Your task to perform on an android device: change your default location settings in chrome Image 0: 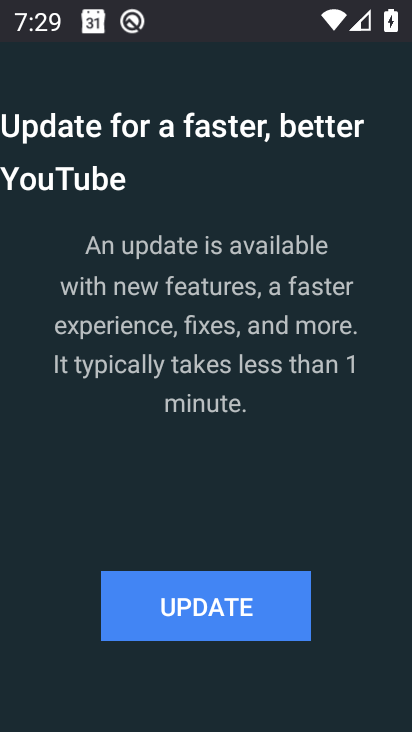
Step 0: press home button
Your task to perform on an android device: change your default location settings in chrome Image 1: 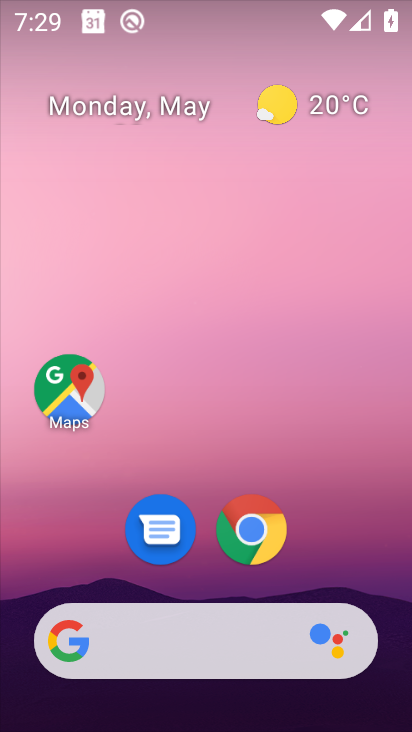
Step 1: click (258, 524)
Your task to perform on an android device: change your default location settings in chrome Image 2: 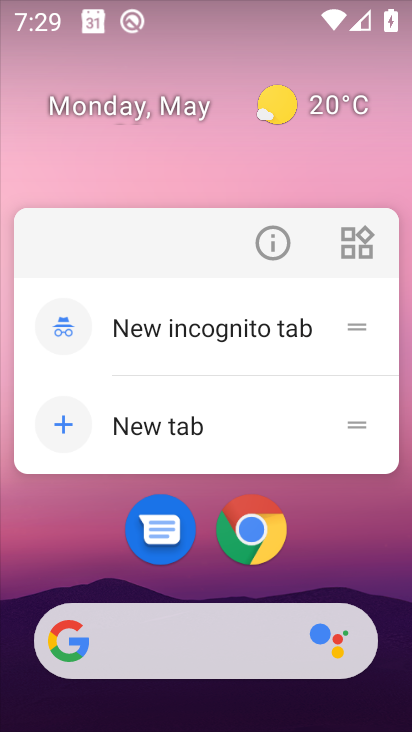
Step 2: click (251, 537)
Your task to perform on an android device: change your default location settings in chrome Image 3: 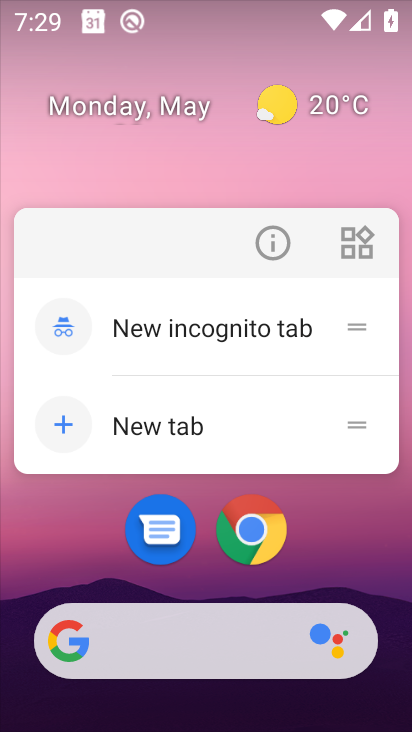
Step 3: click (242, 517)
Your task to perform on an android device: change your default location settings in chrome Image 4: 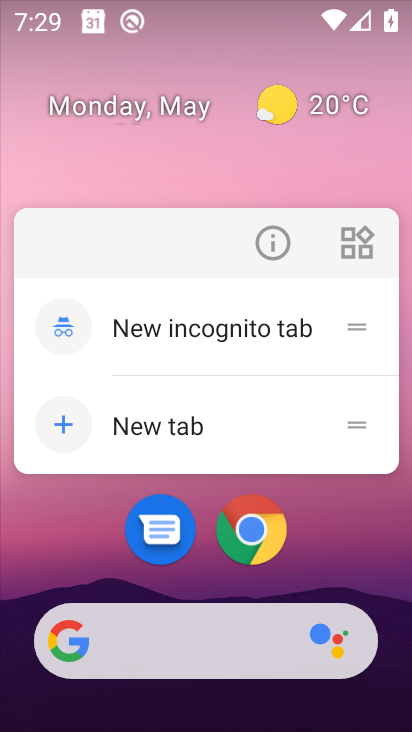
Step 4: click (244, 530)
Your task to perform on an android device: change your default location settings in chrome Image 5: 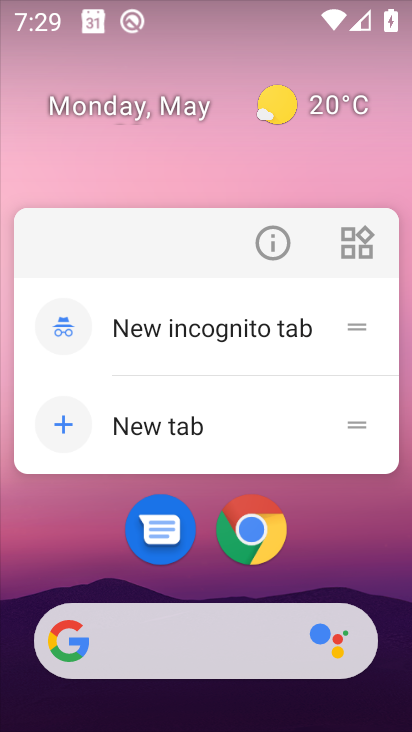
Step 5: click (265, 539)
Your task to perform on an android device: change your default location settings in chrome Image 6: 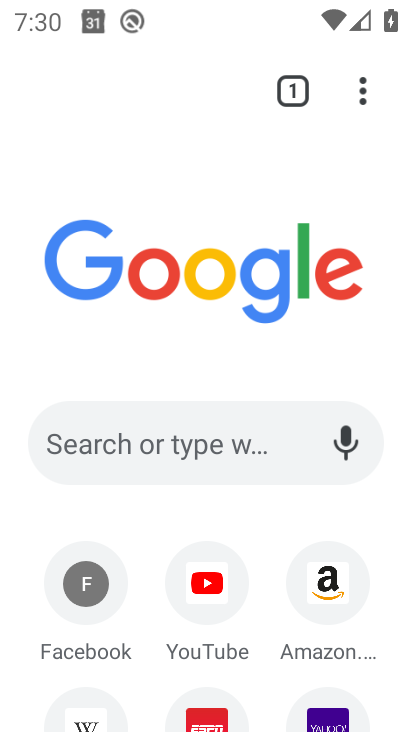
Step 6: click (362, 92)
Your task to perform on an android device: change your default location settings in chrome Image 7: 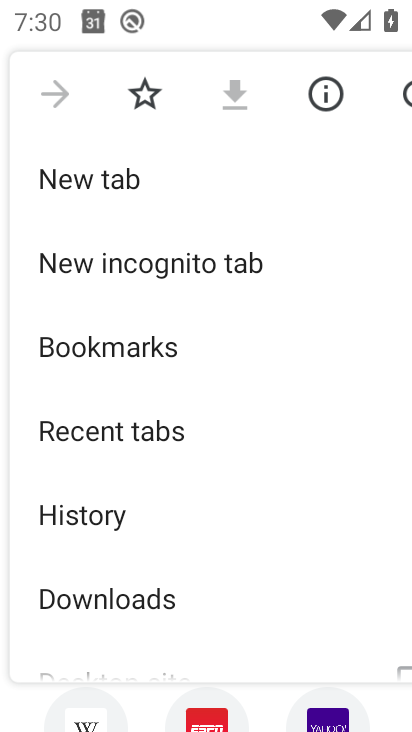
Step 7: drag from (10, 597) to (219, 94)
Your task to perform on an android device: change your default location settings in chrome Image 8: 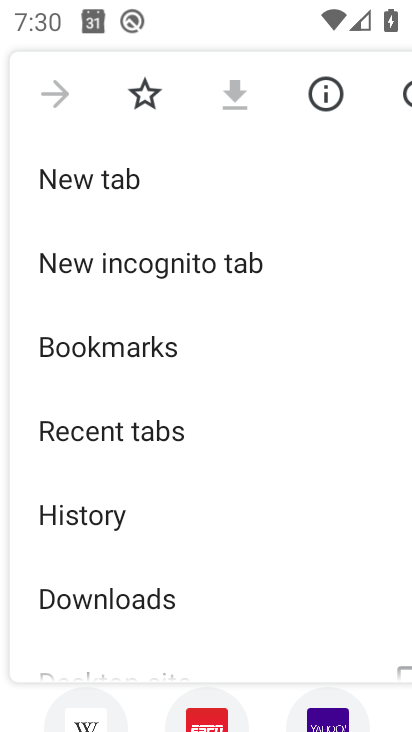
Step 8: drag from (22, 609) to (272, 77)
Your task to perform on an android device: change your default location settings in chrome Image 9: 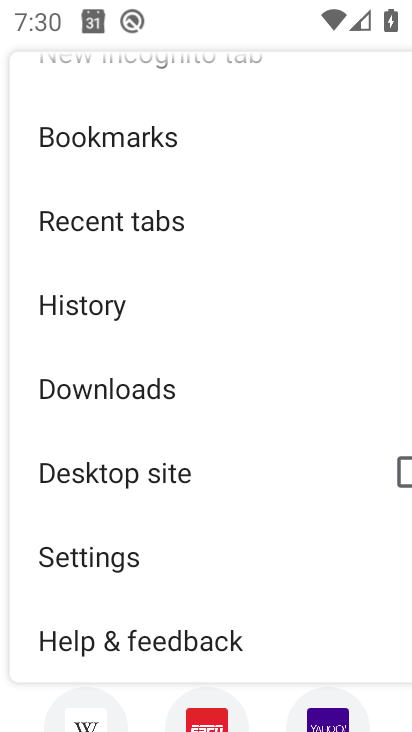
Step 9: click (65, 557)
Your task to perform on an android device: change your default location settings in chrome Image 10: 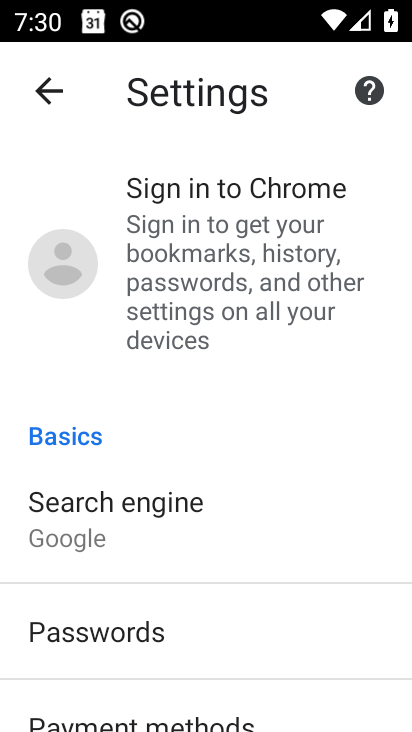
Step 10: drag from (18, 323) to (88, 192)
Your task to perform on an android device: change your default location settings in chrome Image 11: 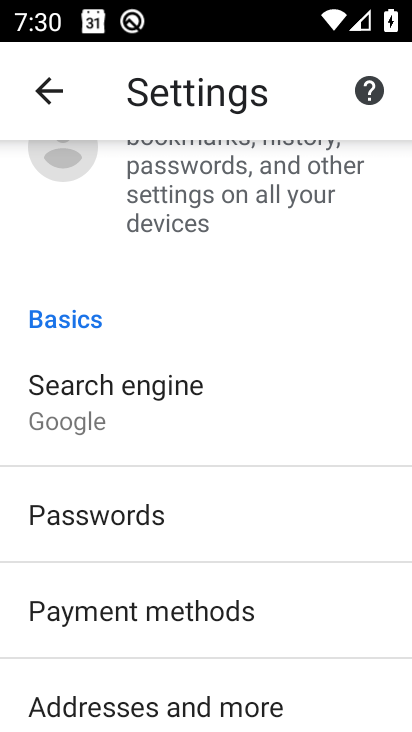
Step 11: drag from (25, 414) to (144, 231)
Your task to perform on an android device: change your default location settings in chrome Image 12: 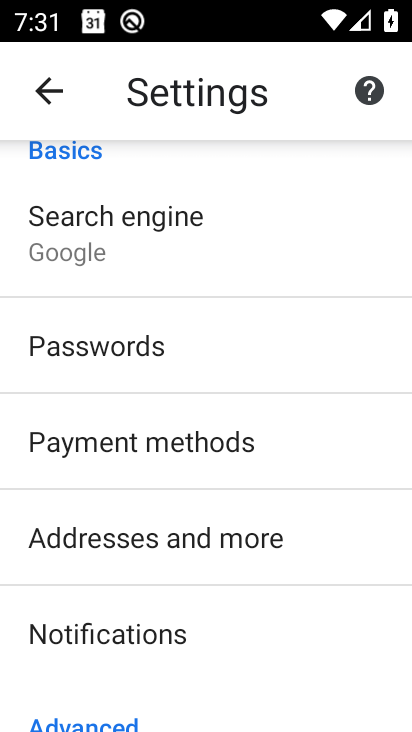
Step 12: drag from (26, 441) to (172, 208)
Your task to perform on an android device: change your default location settings in chrome Image 13: 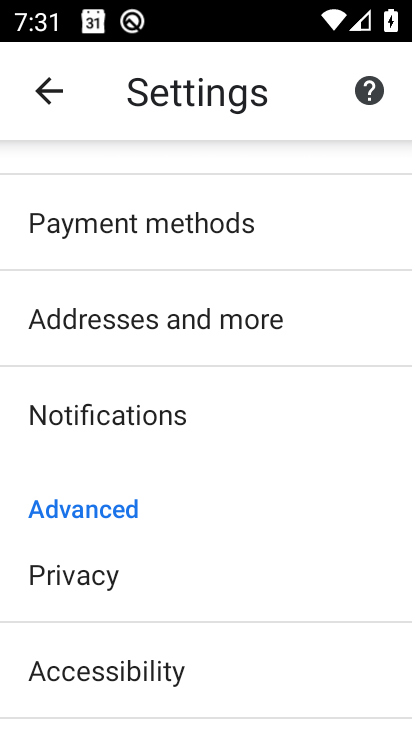
Step 13: drag from (43, 427) to (207, 114)
Your task to perform on an android device: change your default location settings in chrome Image 14: 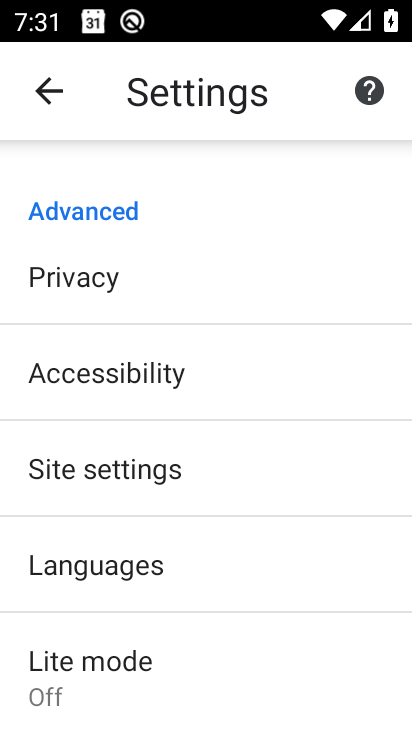
Step 14: click (90, 475)
Your task to perform on an android device: change your default location settings in chrome Image 15: 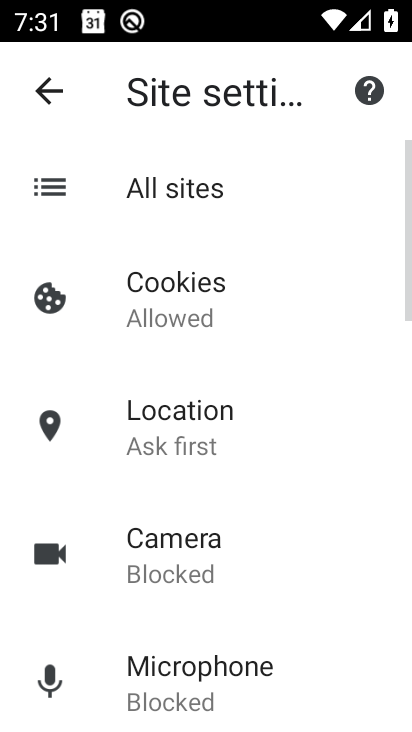
Step 15: click (164, 440)
Your task to perform on an android device: change your default location settings in chrome Image 16: 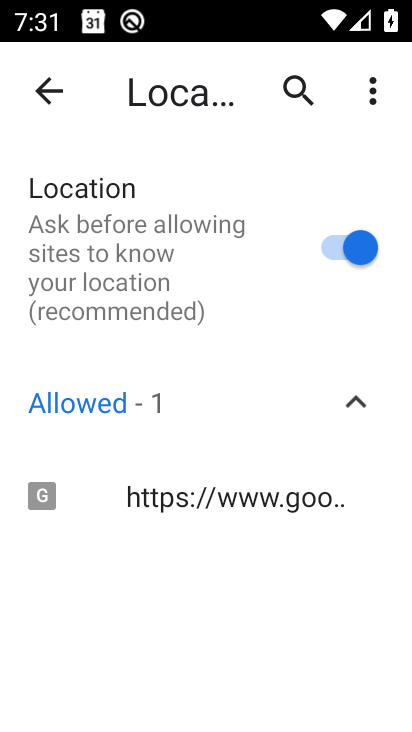
Step 16: click (187, 498)
Your task to perform on an android device: change your default location settings in chrome Image 17: 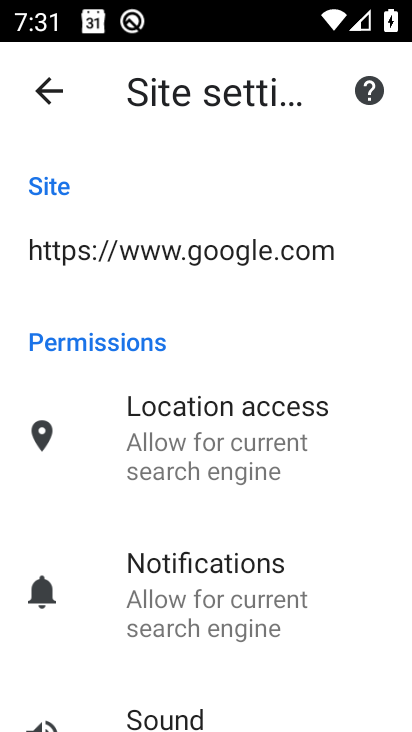
Step 17: click (192, 450)
Your task to perform on an android device: change your default location settings in chrome Image 18: 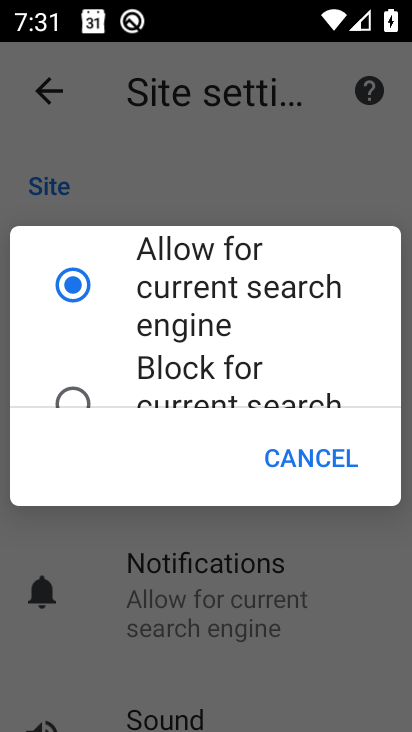
Step 18: click (326, 444)
Your task to perform on an android device: change your default location settings in chrome Image 19: 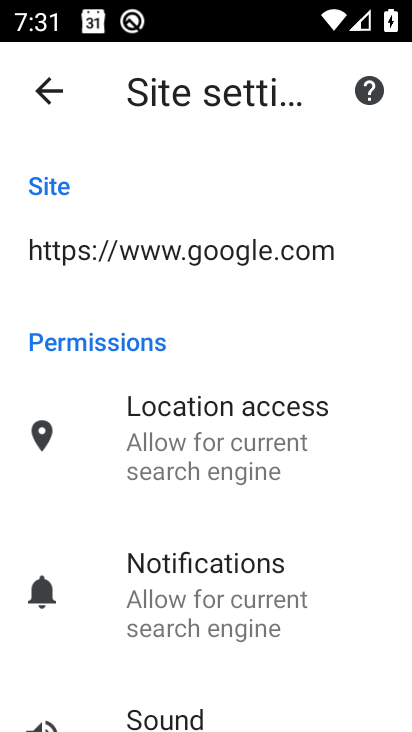
Step 19: task complete